Your task to perform on an android device: allow notifications from all sites in the chrome app Image 0: 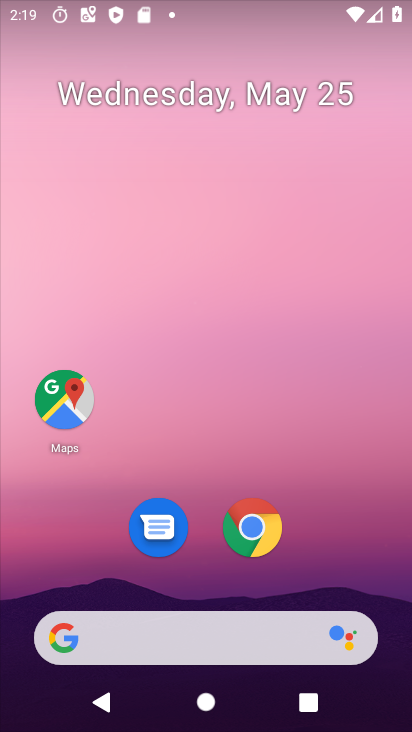
Step 0: click (272, 163)
Your task to perform on an android device: allow notifications from all sites in the chrome app Image 1: 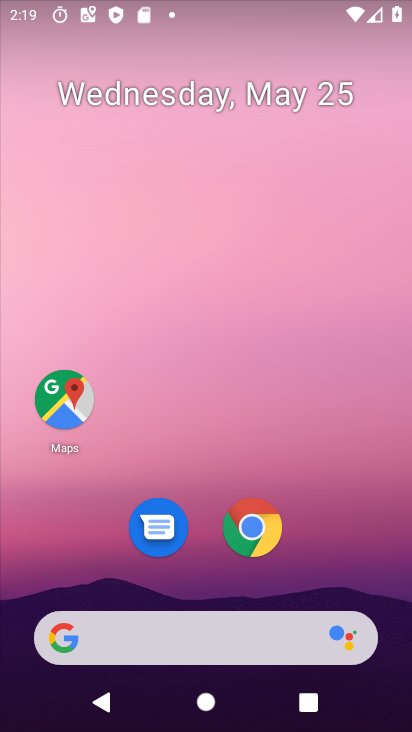
Step 1: click (248, 530)
Your task to perform on an android device: allow notifications from all sites in the chrome app Image 2: 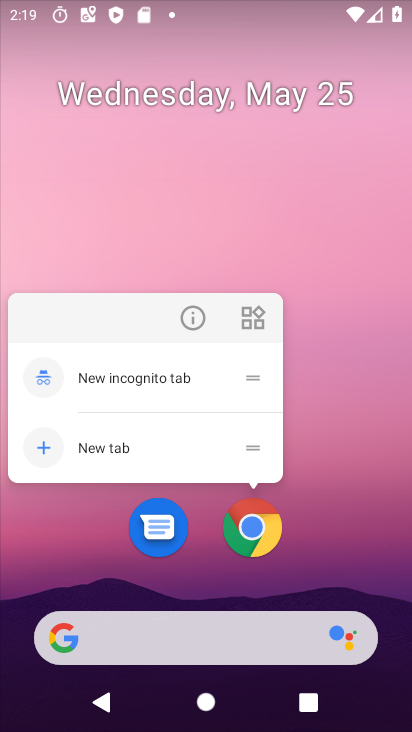
Step 2: click (178, 314)
Your task to perform on an android device: allow notifications from all sites in the chrome app Image 3: 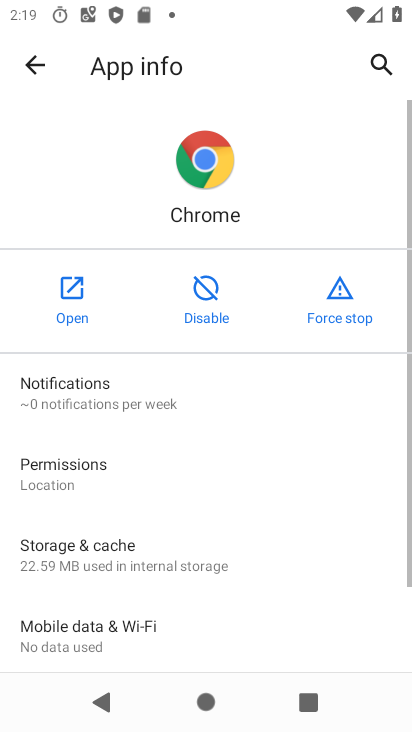
Step 3: click (84, 308)
Your task to perform on an android device: allow notifications from all sites in the chrome app Image 4: 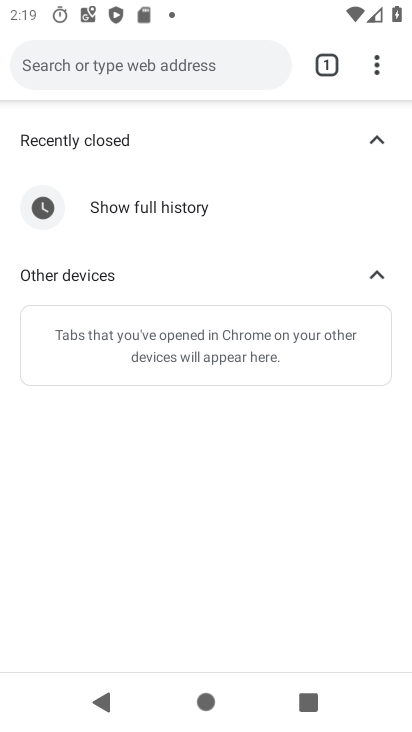
Step 4: click (378, 68)
Your task to perform on an android device: allow notifications from all sites in the chrome app Image 5: 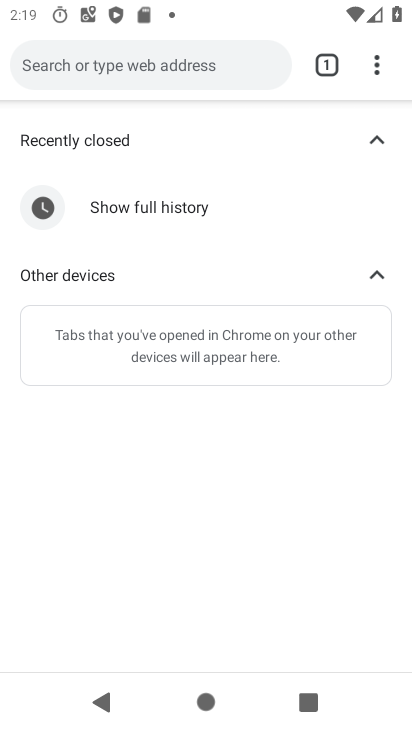
Step 5: click (372, 59)
Your task to perform on an android device: allow notifications from all sites in the chrome app Image 6: 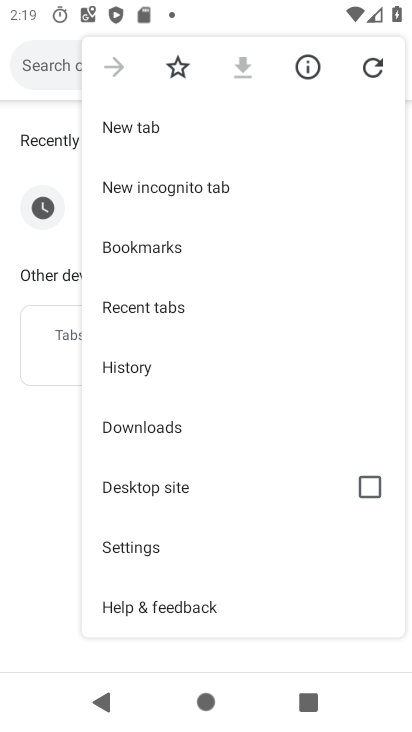
Step 6: drag from (166, 551) to (291, 46)
Your task to perform on an android device: allow notifications from all sites in the chrome app Image 7: 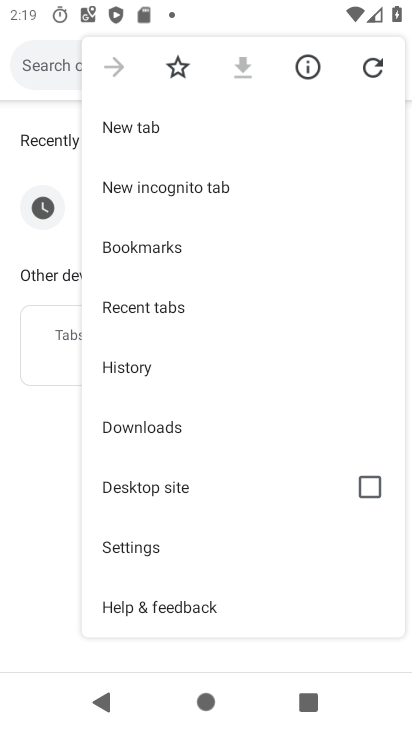
Step 7: drag from (228, 480) to (322, 80)
Your task to perform on an android device: allow notifications from all sites in the chrome app Image 8: 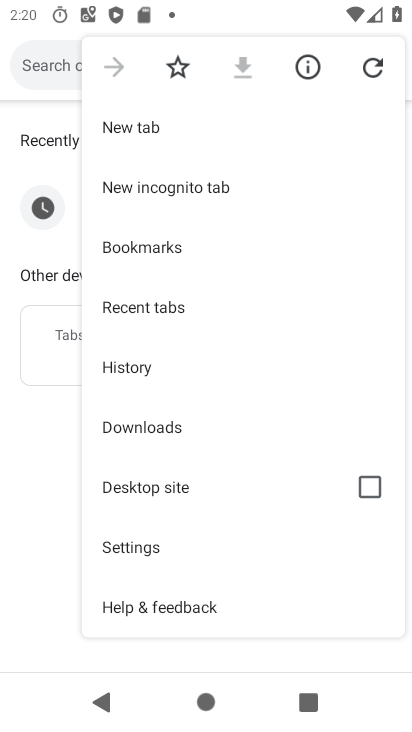
Step 8: click (151, 557)
Your task to perform on an android device: allow notifications from all sites in the chrome app Image 9: 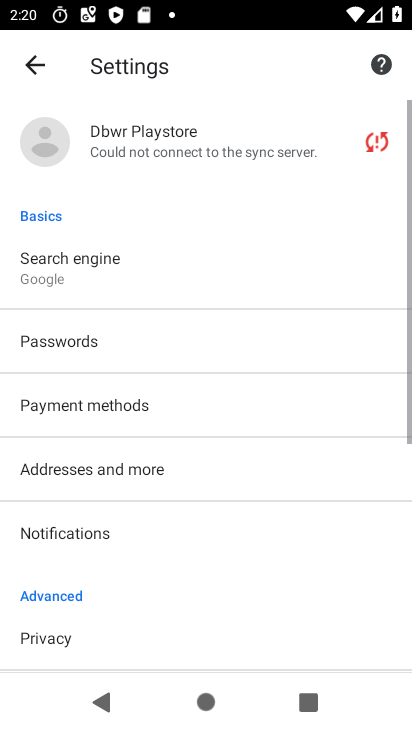
Step 9: drag from (162, 383) to (253, 81)
Your task to perform on an android device: allow notifications from all sites in the chrome app Image 10: 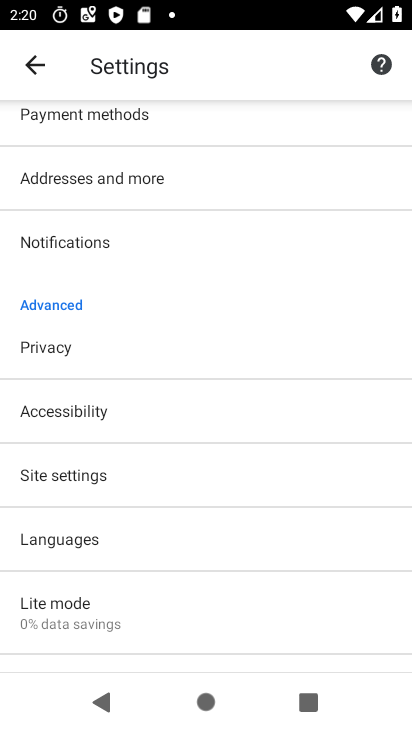
Step 10: click (78, 481)
Your task to perform on an android device: allow notifications from all sites in the chrome app Image 11: 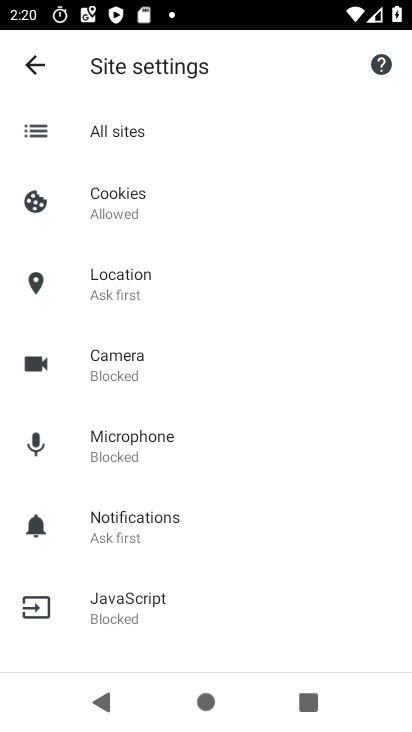
Step 11: click (157, 526)
Your task to perform on an android device: allow notifications from all sites in the chrome app Image 12: 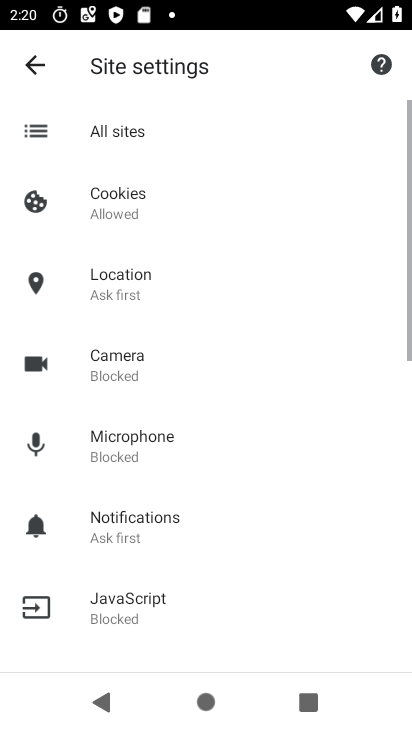
Step 12: task complete